Your task to perform on an android device: What is the capital of England? Image 0: 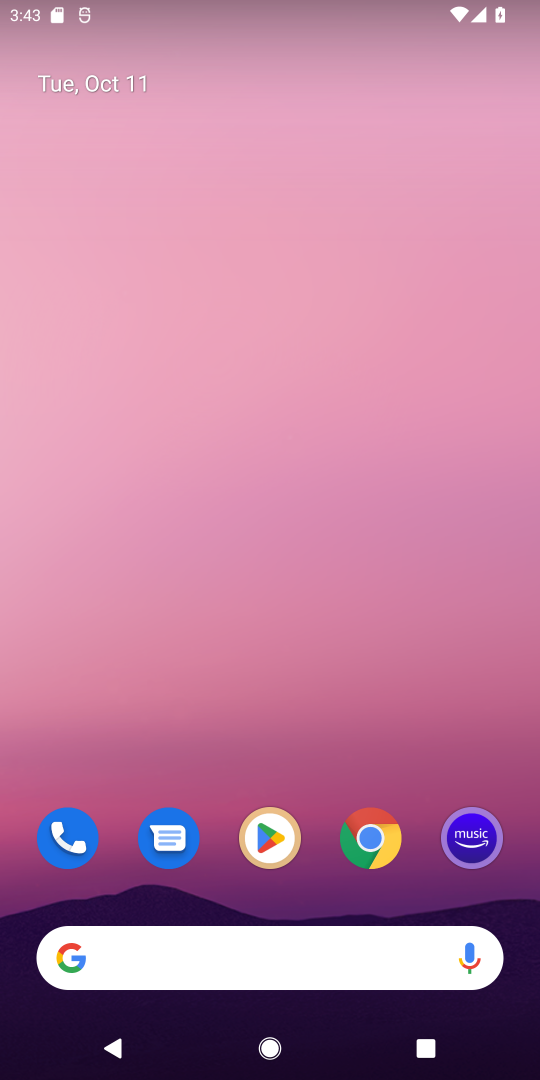
Step 0: click (376, 823)
Your task to perform on an android device: What is the capital of England? Image 1: 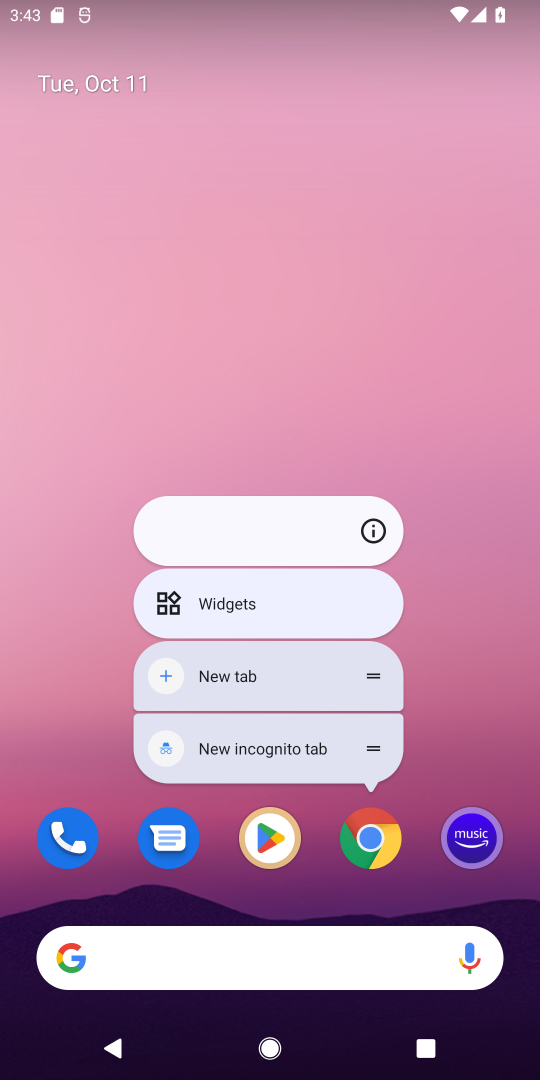
Step 1: click (364, 848)
Your task to perform on an android device: What is the capital of England? Image 2: 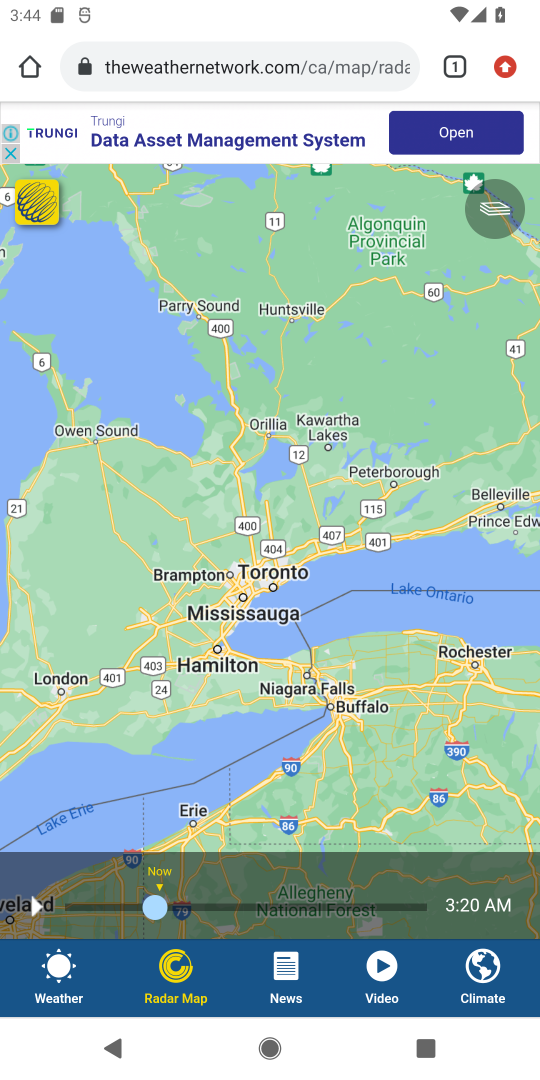
Step 2: click (255, 62)
Your task to perform on an android device: What is the capital of England? Image 3: 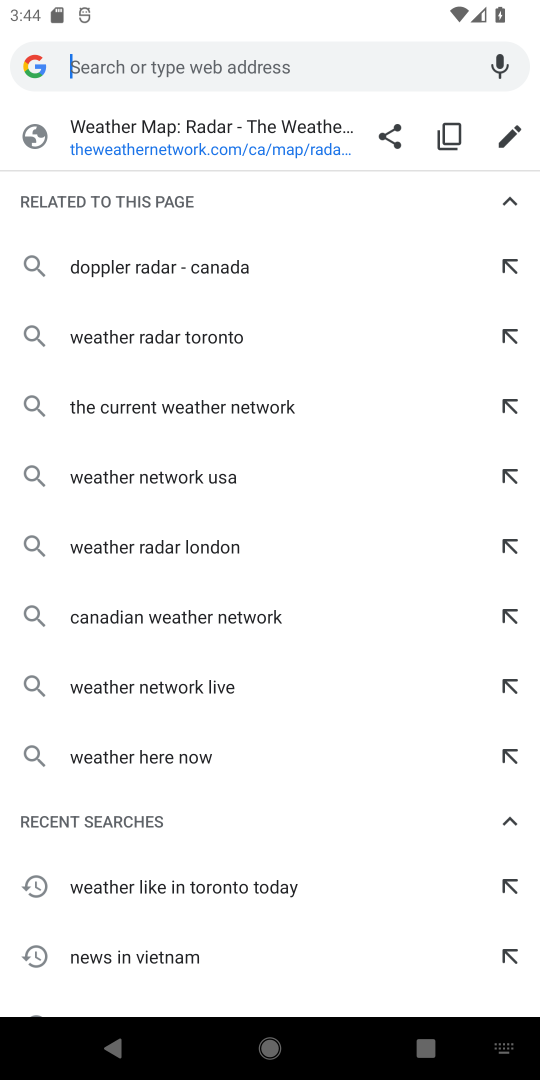
Step 3: type "capital of england"
Your task to perform on an android device: What is the capital of England? Image 4: 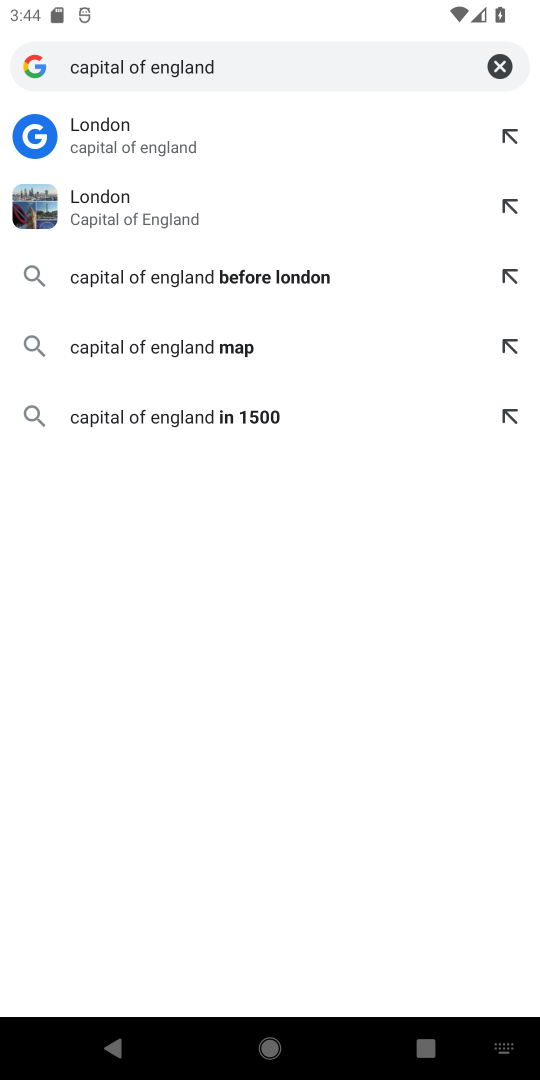
Step 4: click (125, 140)
Your task to perform on an android device: What is the capital of England? Image 5: 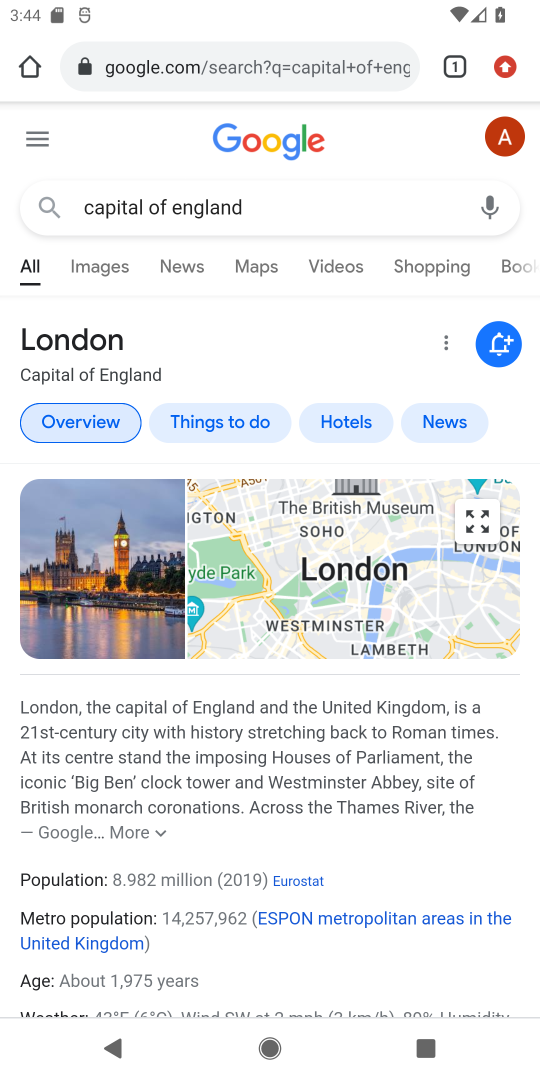
Step 5: task complete